Your task to perform on an android device: check storage Image 0: 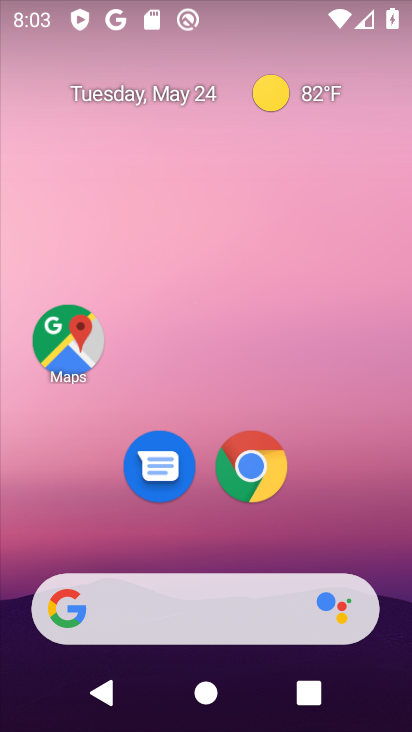
Step 0: drag from (252, 574) to (316, 148)
Your task to perform on an android device: check storage Image 1: 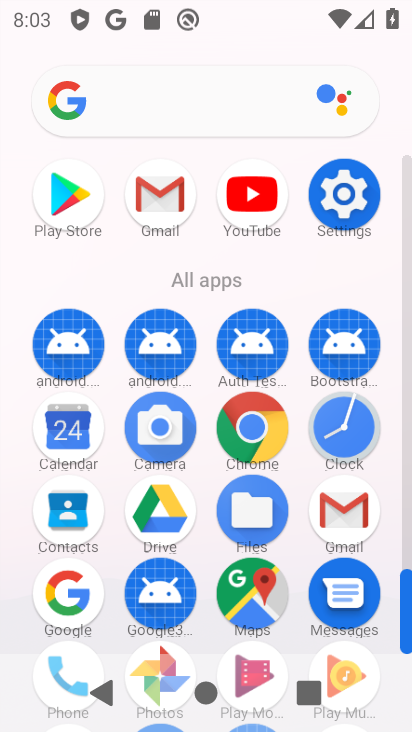
Step 1: click (353, 199)
Your task to perform on an android device: check storage Image 2: 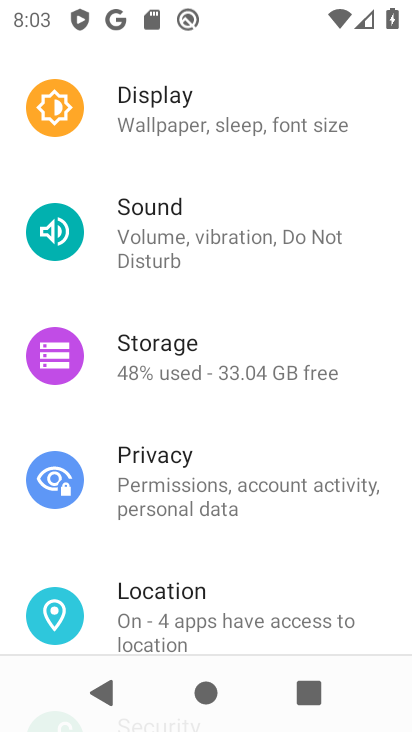
Step 2: click (169, 357)
Your task to perform on an android device: check storage Image 3: 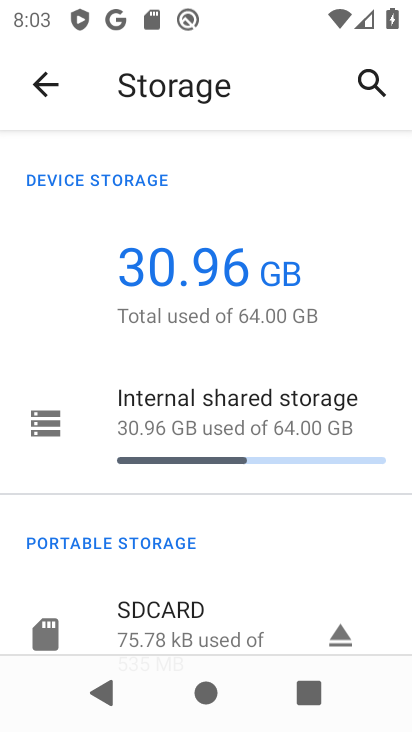
Step 3: task complete